Your task to perform on an android device: Open calendar and show me the third week of next month Image 0: 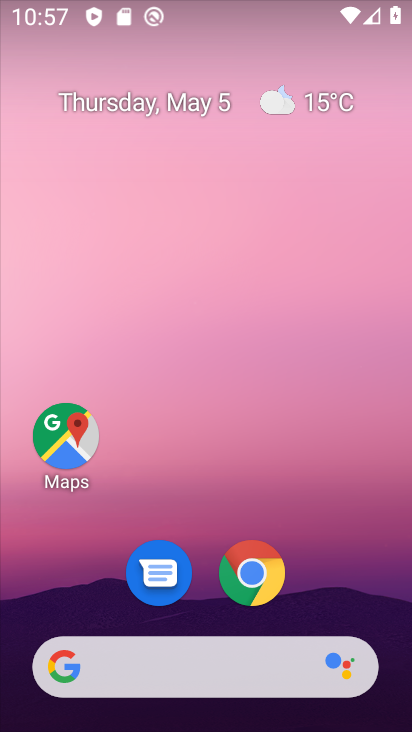
Step 0: drag from (107, 610) to (229, 25)
Your task to perform on an android device: Open calendar and show me the third week of next month Image 1: 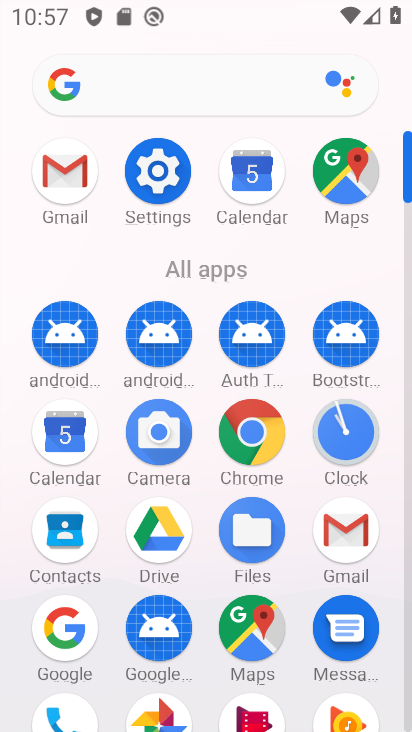
Step 1: click (59, 453)
Your task to perform on an android device: Open calendar and show me the third week of next month Image 2: 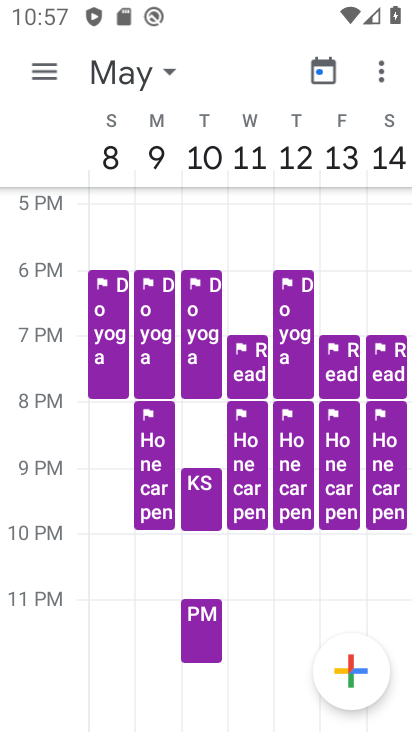
Step 2: click (119, 76)
Your task to perform on an android device: Open calendar and show me the third week of next month Image 3: 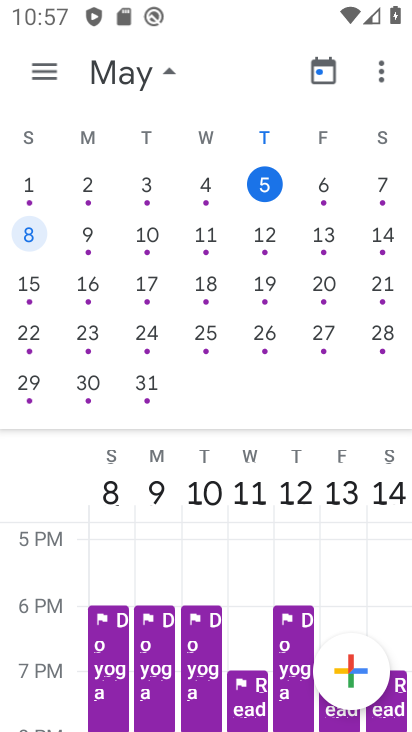
Step 3: drag from (299, 264) to (0, 261)
Your task to perform on an android device: Open calendar and show me the third week of next month Image 4: 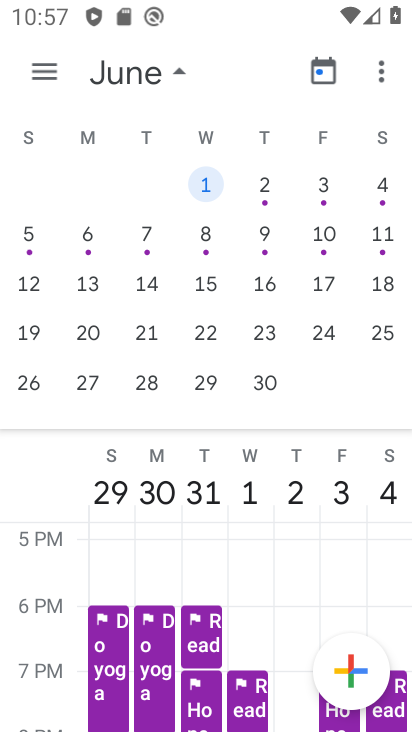
Step 4: click (32, 337)
Your task to perform on an android device: Open calendar and show me the third week of next month Image 5: 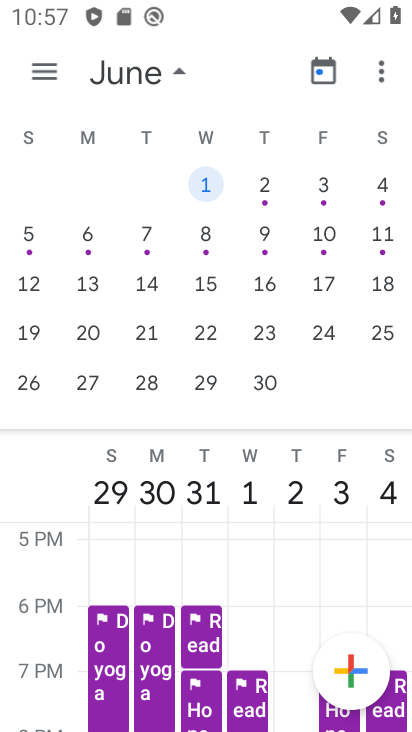
Step 5: click (32, 338)
Your task to perform on an android device: Open calendar and show me the third week of next month Image 6: 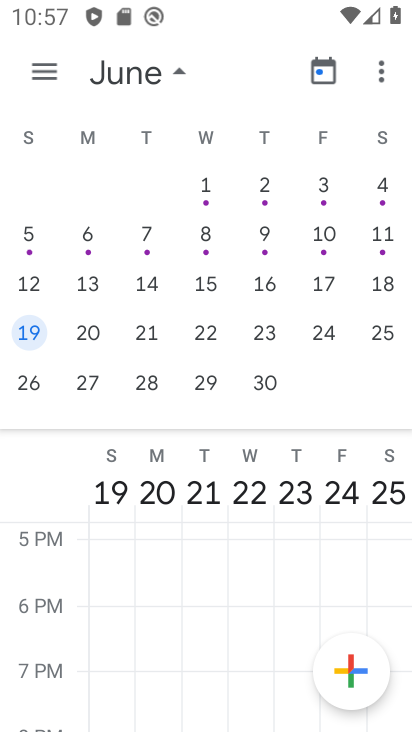
Step 6: click (179, 73)
Your task to perform on an android device: Open calendar and show me the third week of next month Image 7: 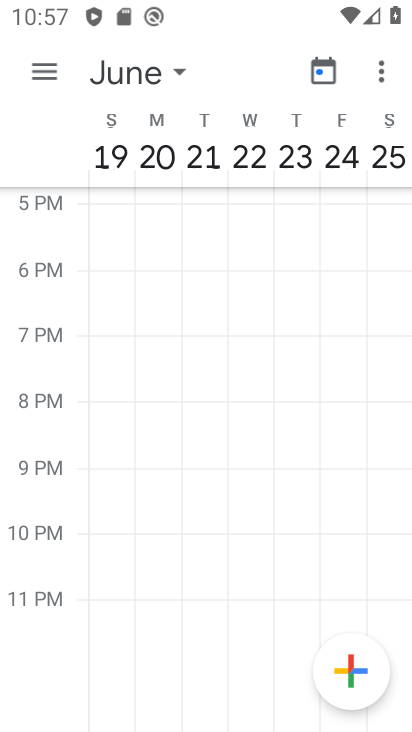
Step 7: task complete